Your task to perform on an android device: turn pop-ups off in chrome Image 0: 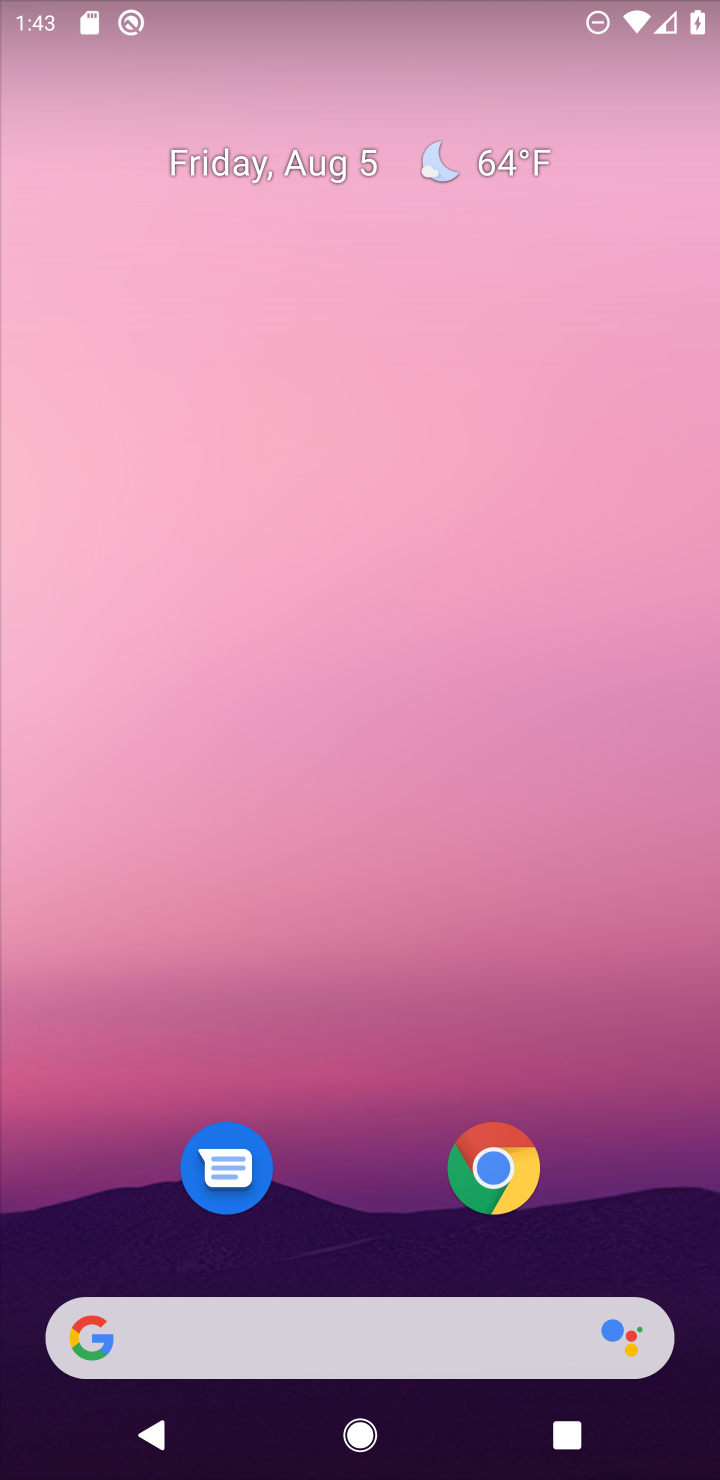
Step 0: drag from (696, 1221) to (419, 10)
Your task to perform on an android device: turn pop-ups off in chrome Image 1: 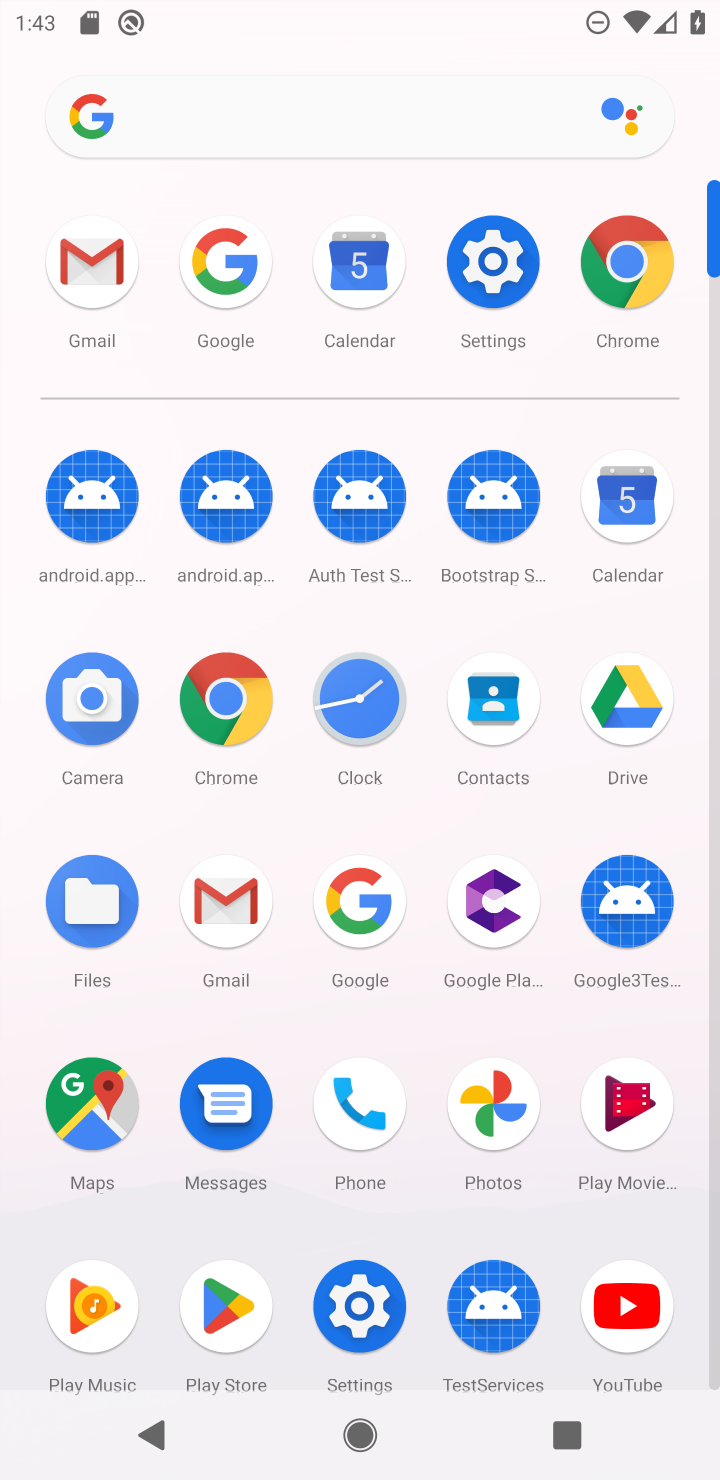
Step 1: click (656, 247)
Your task to perform on an android device: turn pop-ups off in chrome Image 2: 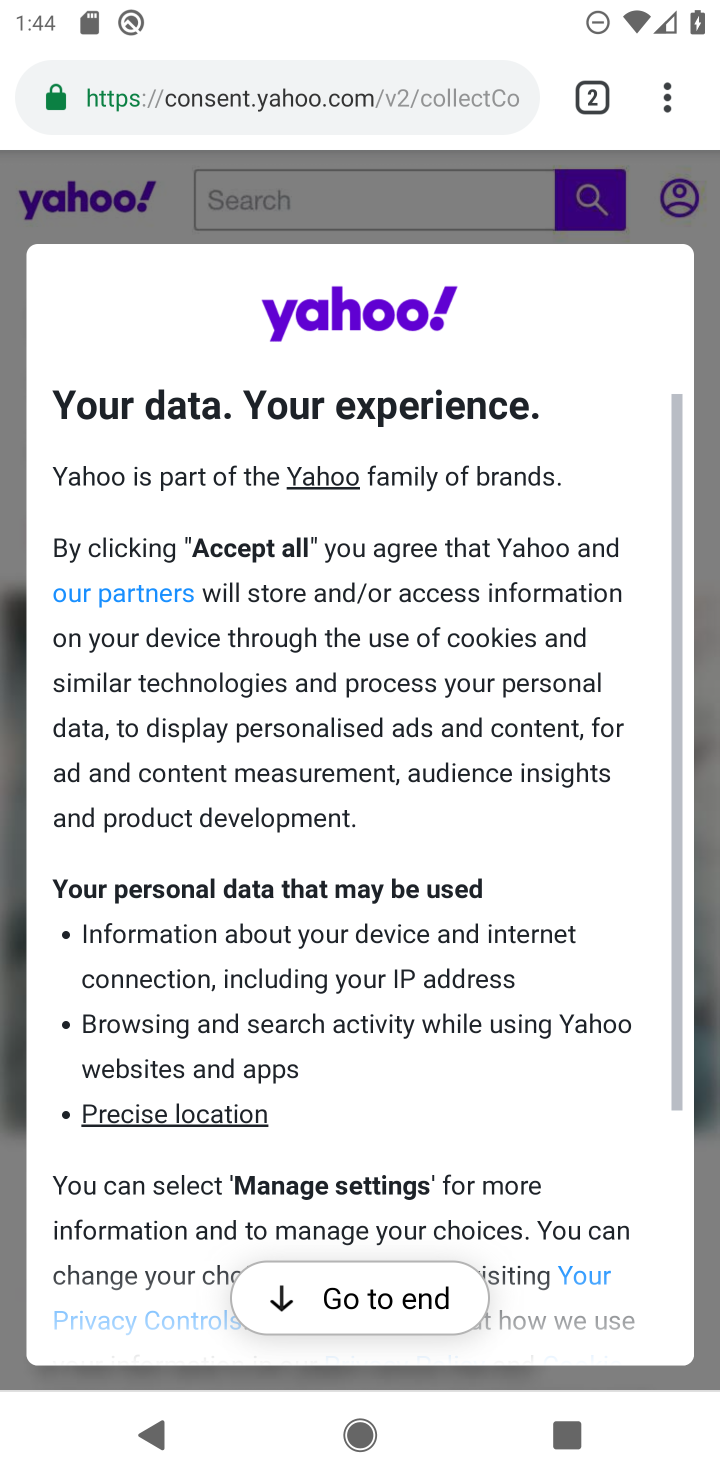
Step 2: press back button
Your task to perform on an android device: turn pop-ups off in chrome Image 3: 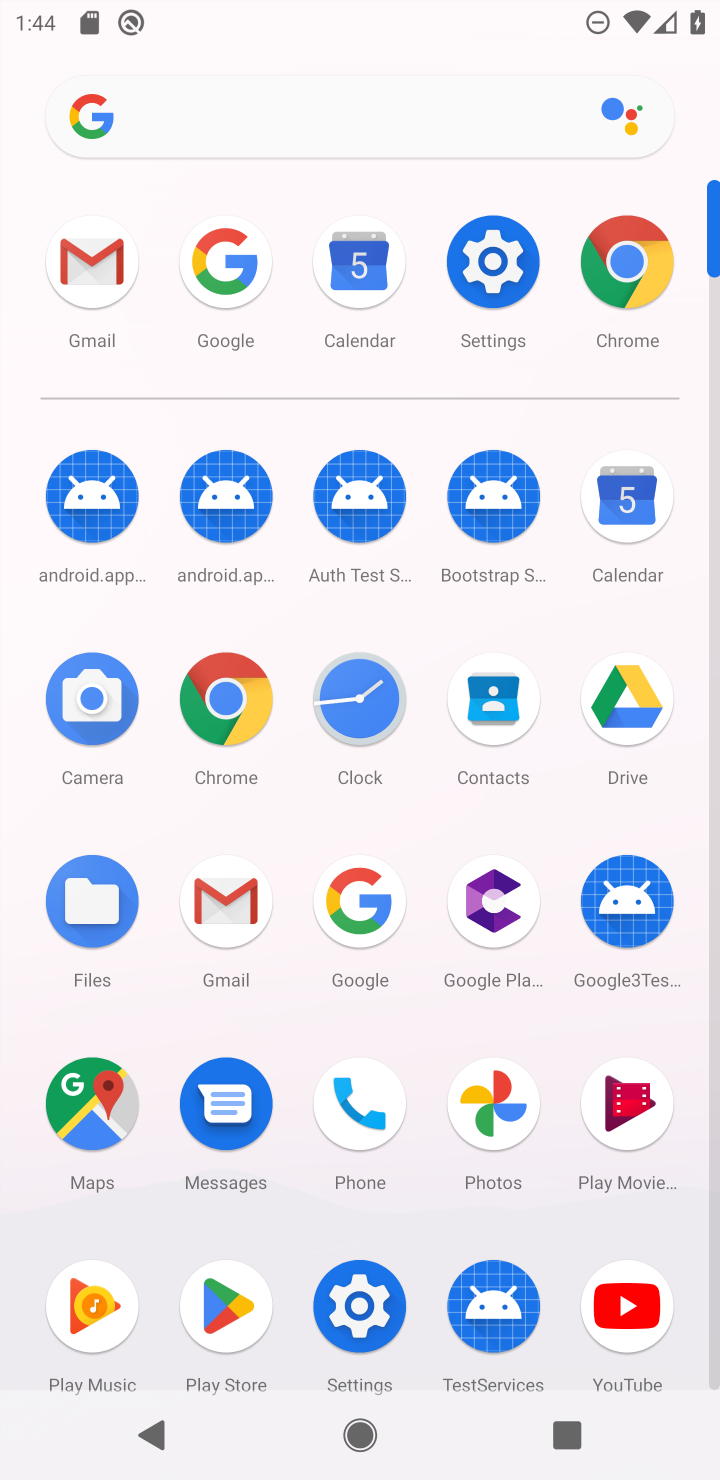
Step 3: click (630, 248)
Your task to perform on an android device: turn pop-ups off in chrome Image 4: 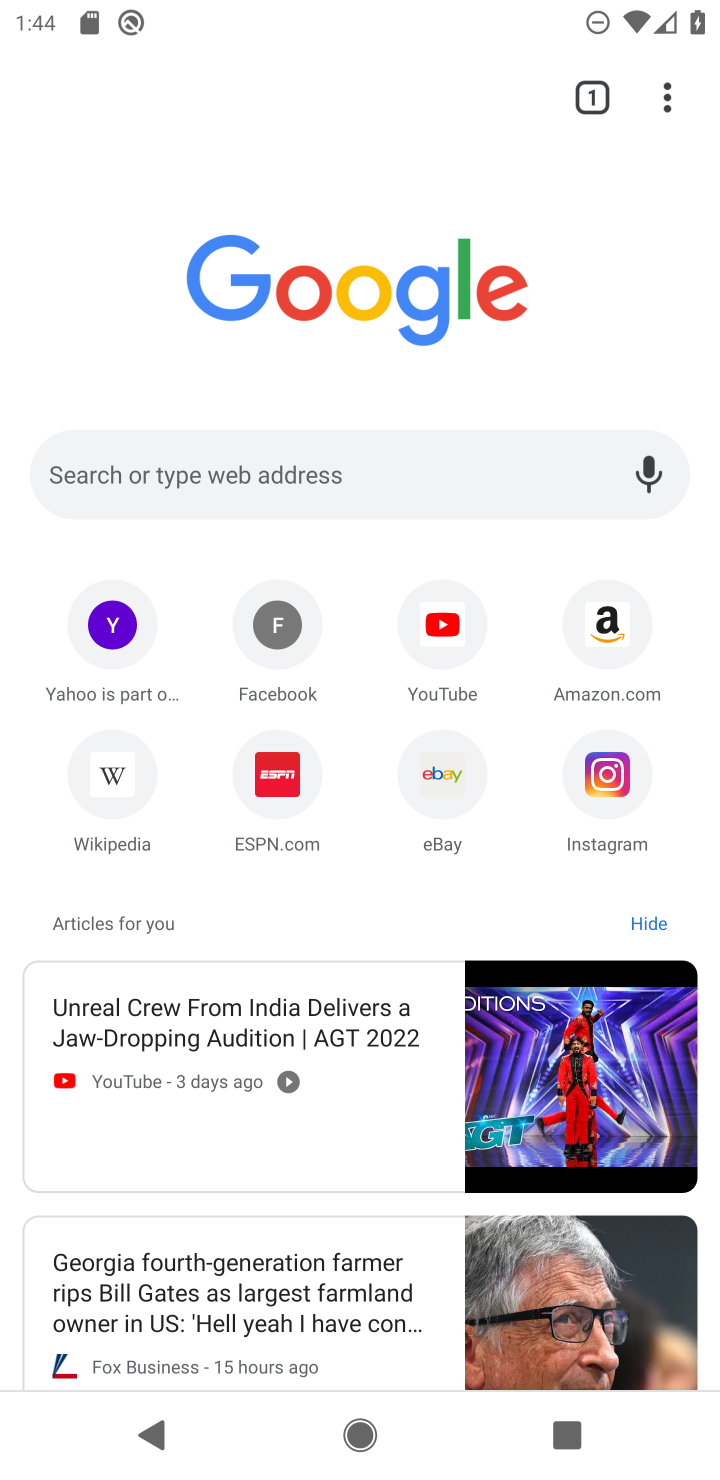
Step 4: click (672, 103)
Your task to perform on an android device: turn pop-ups off in chrome Image 5: 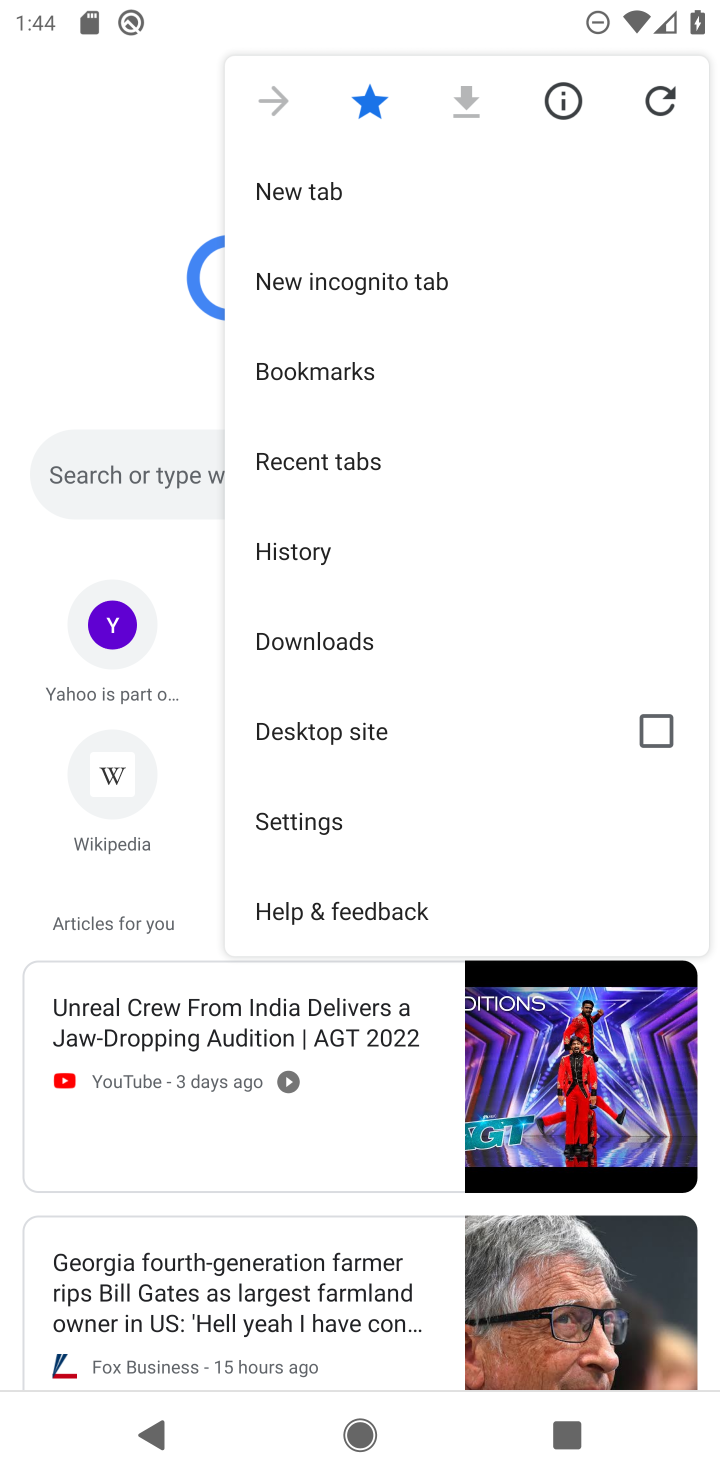
Step 5: click (373, 829)
Your task to perform on an android device: turn pop-ups off in chrome Image 6: 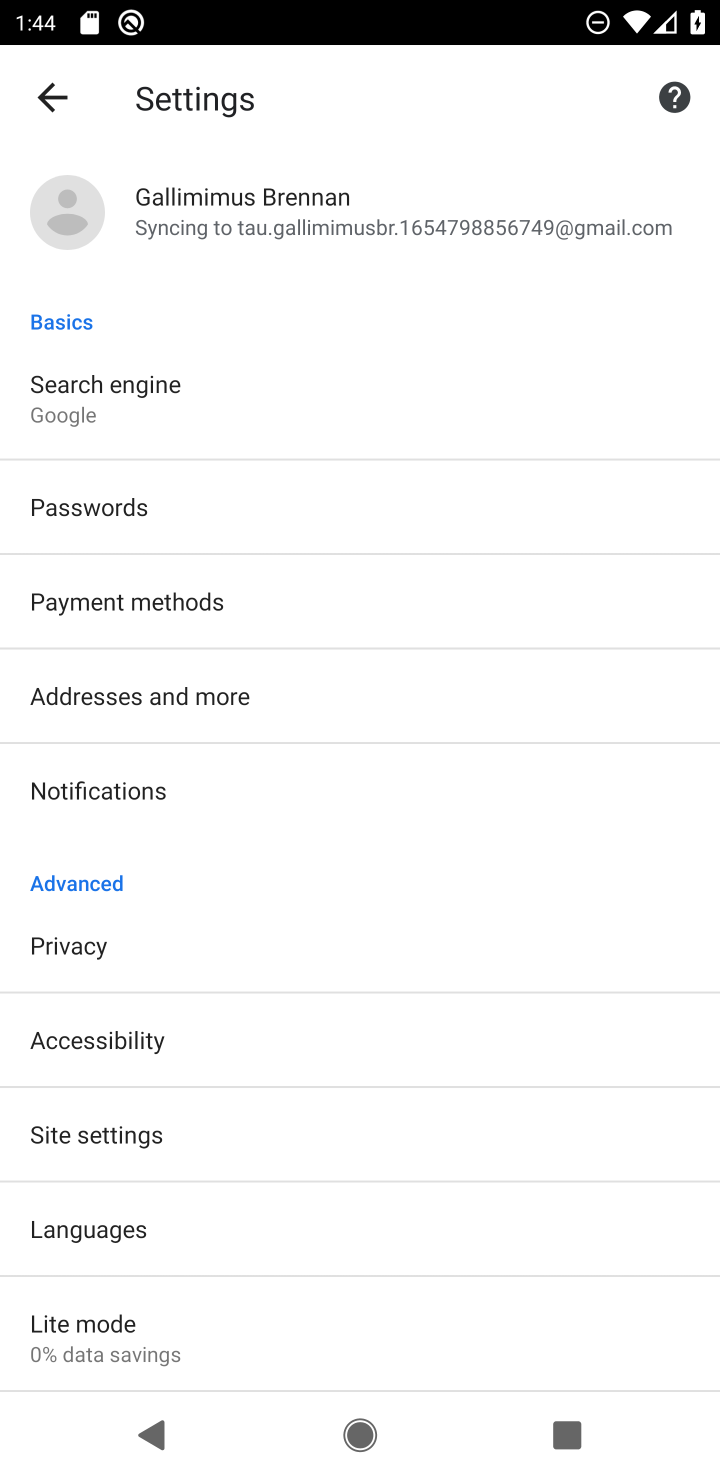
Step 6: click (167, 1138)
Your task to perform on an android device: turn pop-ups off in chrome Image 7: 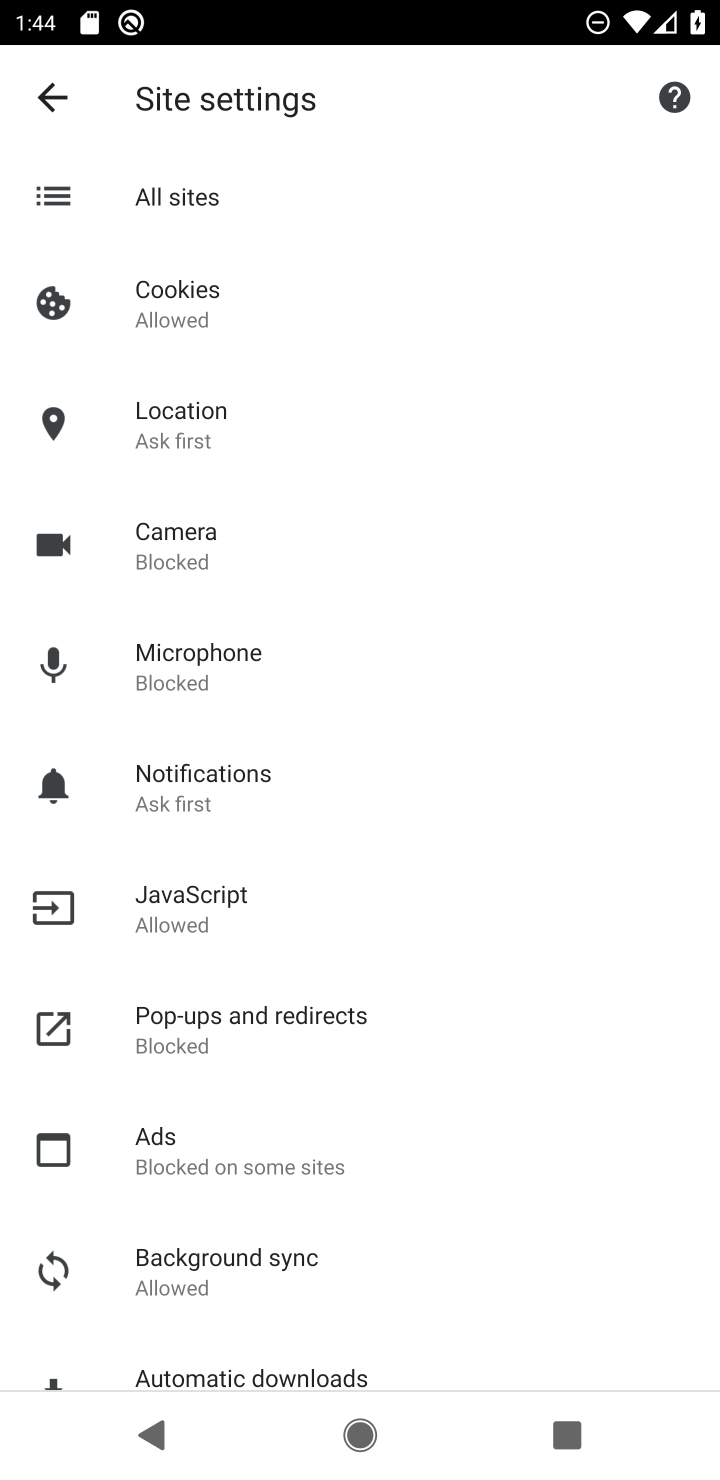
Step 7: click (216, 1023)
Your task to perform on an android device: turn pop-ups off in chrome Image 8: 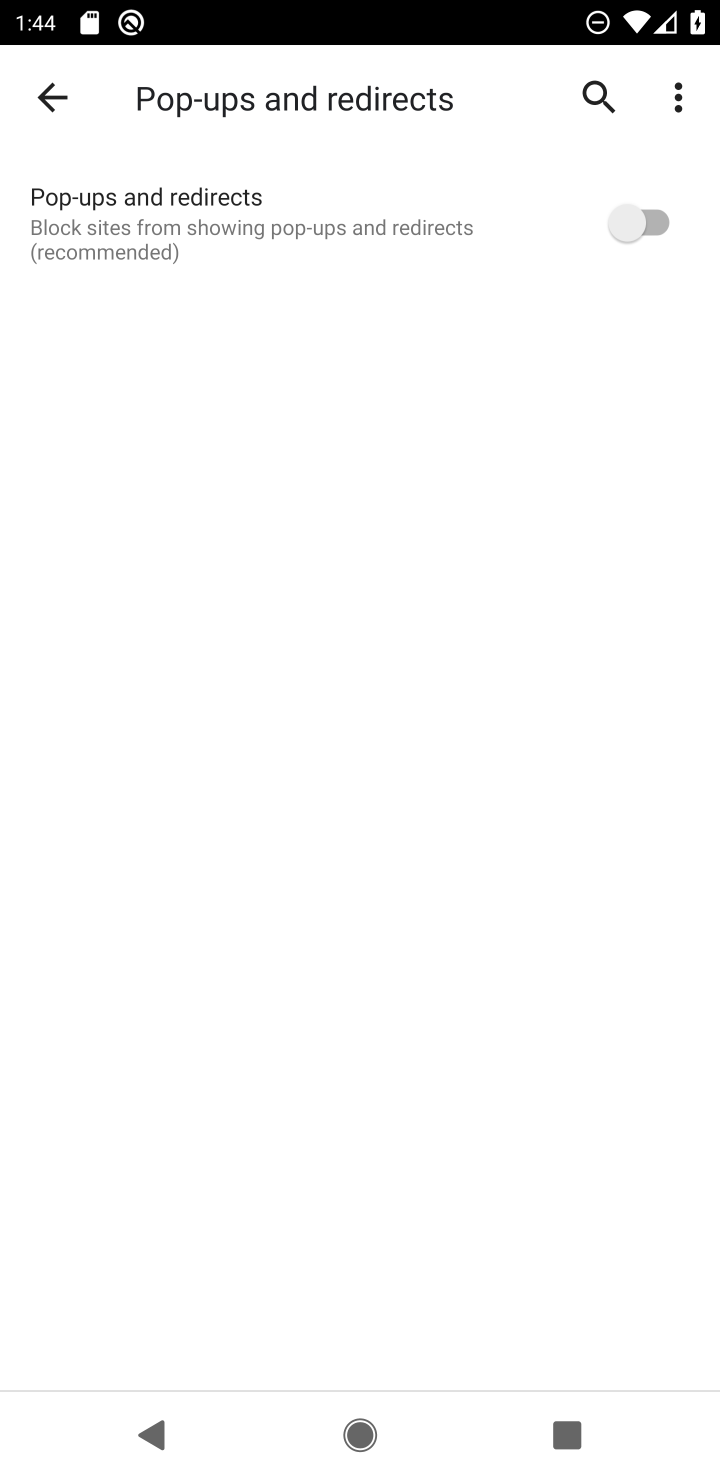
Step 8: task complete